Your task to perform on an android device: open a new tab in the chrome app Image 0: 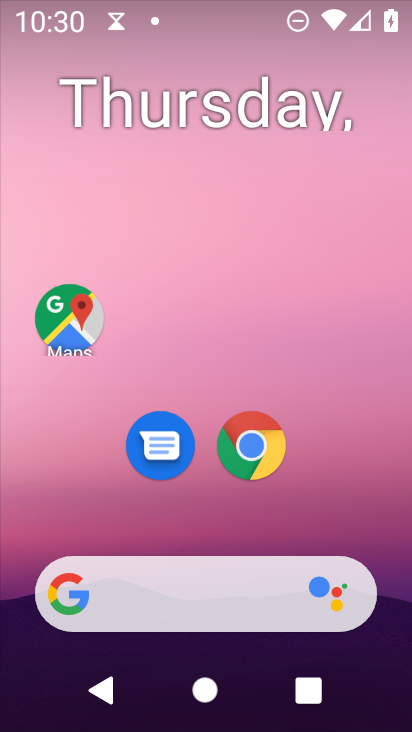
Step 0: click (253, 451)
Your task to perform on an android device: open a new tab in the chrome app Image 1: 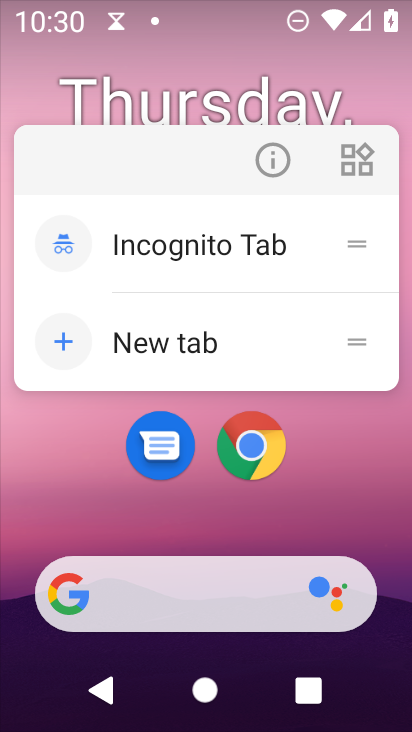
Step 1: click (253, 452)
Your task to perform on an android device: open a new tab in the chrome app Image 2: 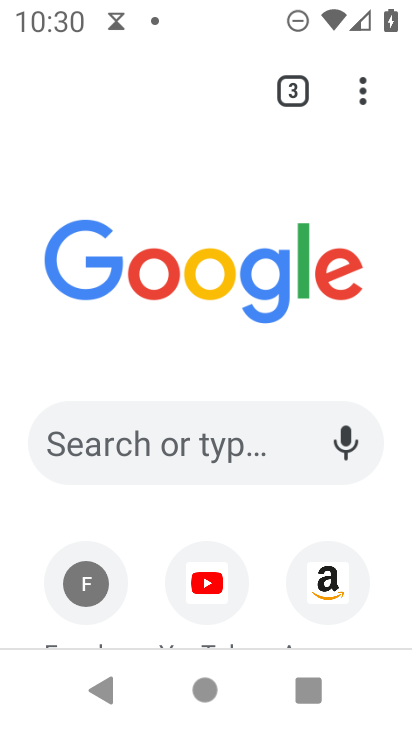
Step 2: click (362, 96)
Your task to perform on an android device: open a new tab in the chrome app Image 3: 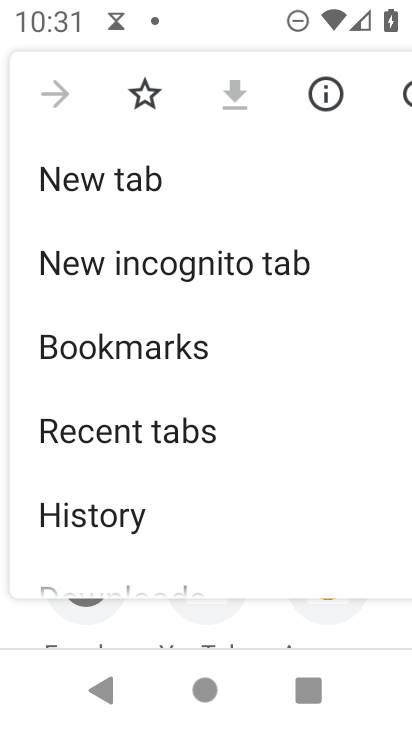
Step 3: click (93, 170)
Your task to perform on an android device: open a new tab in the chrome app Image 4: 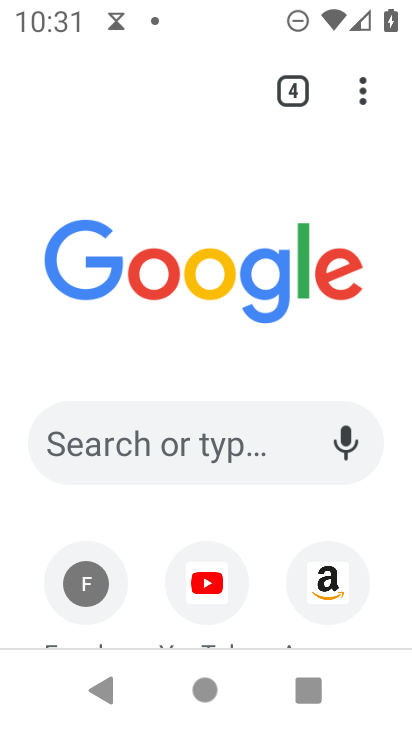
Step 4: task complete